Your task to perform on an android device: Set the phone to "Do not disturb". Image 0: 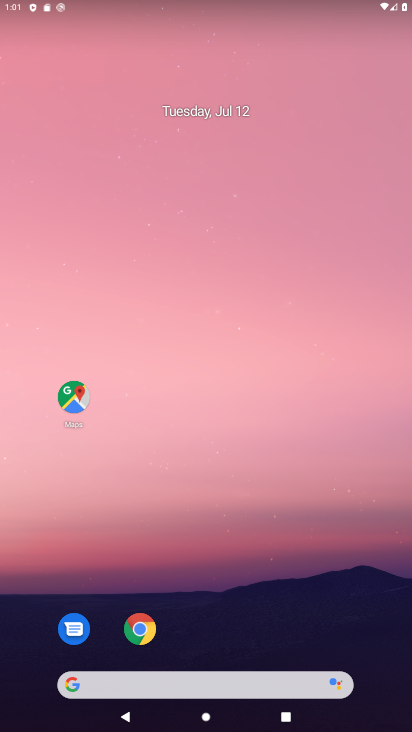
Step 0: drag from (213, 650) to (272, 4)
Your task to perform on an android device: Set the phone to "Do not disturb". Image 1: 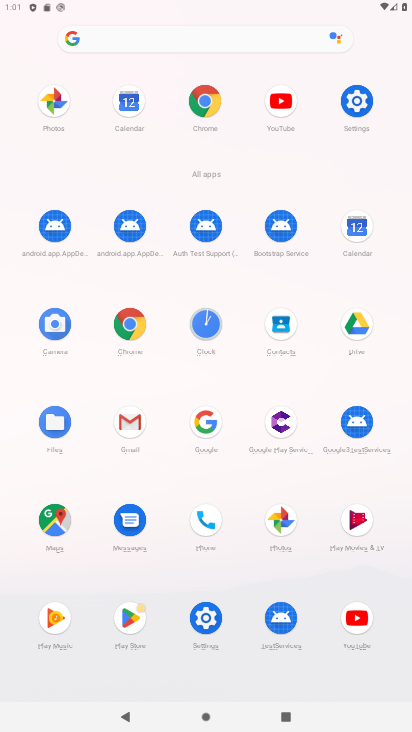
Step 1: drag from (169, 4) to (192, 550)
Your task to perform on an android device: Set the phone to "Do not disturb". Image 2: 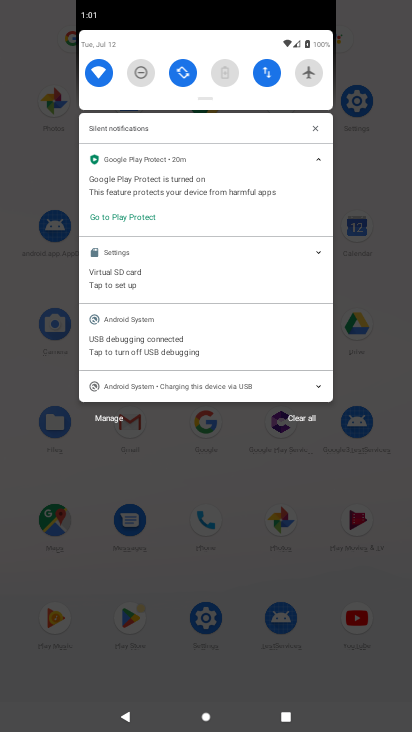
Step 2: click (140, 76)
Your task to perform on an android device: Set the phone to "Do not disturb". Image 3: 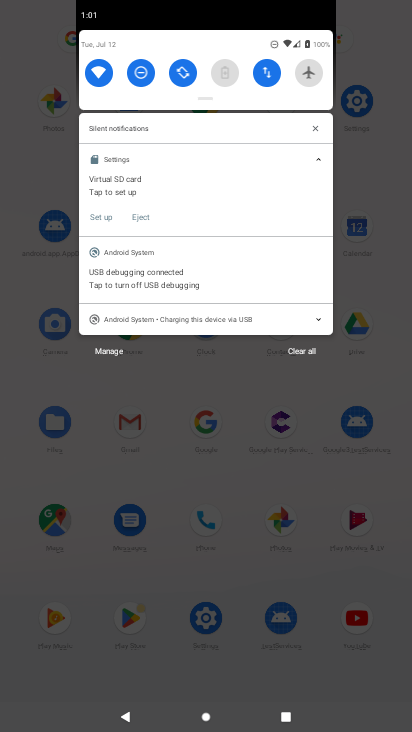
Step 3: task complete